Your task to perform on an android device: Show me popular videos on Youtube Image 0: 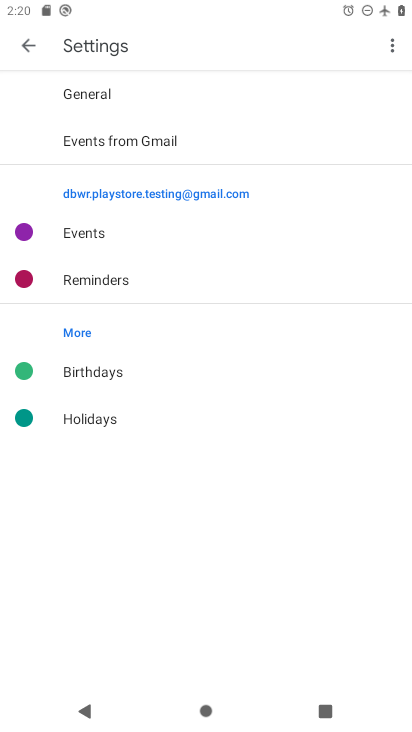
Step 0: press home button
Your task to perform on an android device: Show me popular videos on Youtube Image 1: 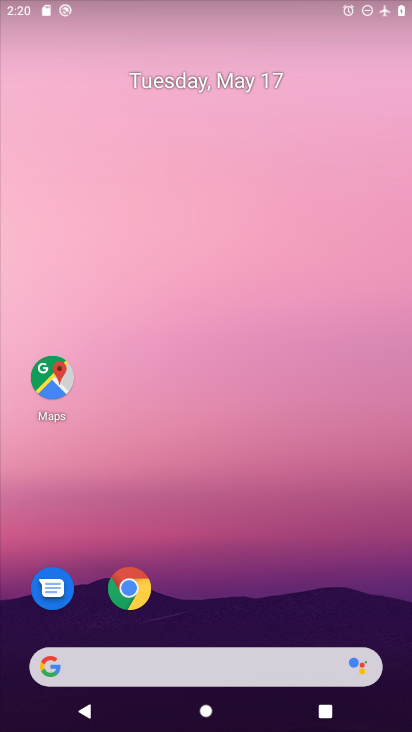
Step 1: drag from (235, 586) to (208, 146)
Your task to perform on an android device: Show me popular videos on Youtube Image 2: 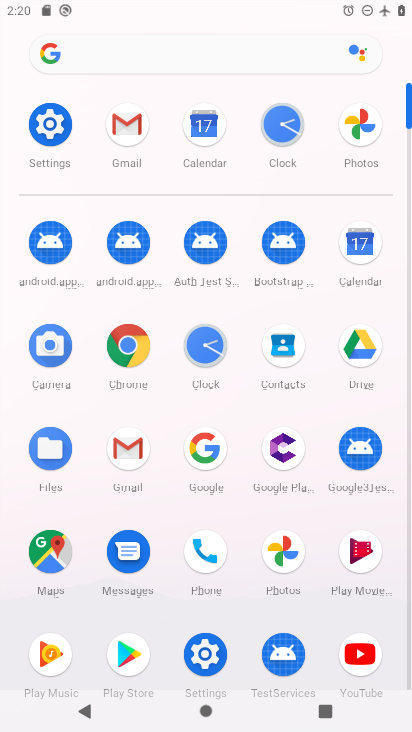
Step 2: click (349, 637)
Your task to perform on an android device: Show me popular videos on Youtube Image 3: 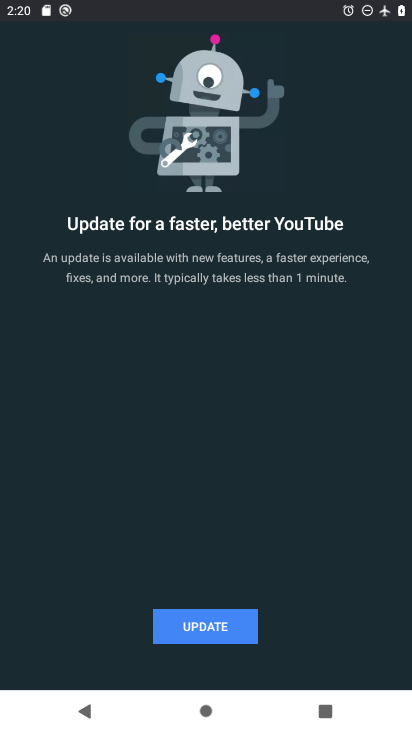
Step 3: click (143, 630)
Your task to perform on an android device: Show me popular videos on Youtube Image 4: 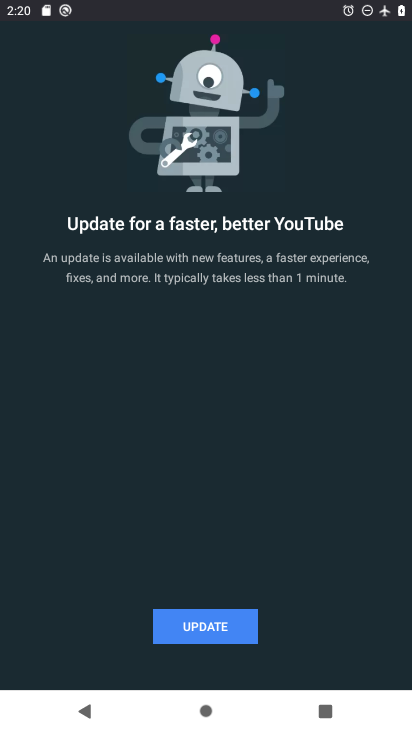
Step 4: click (195, 621)
Your task to perform on an android device: Show me popular videos on Youtube Image 5: 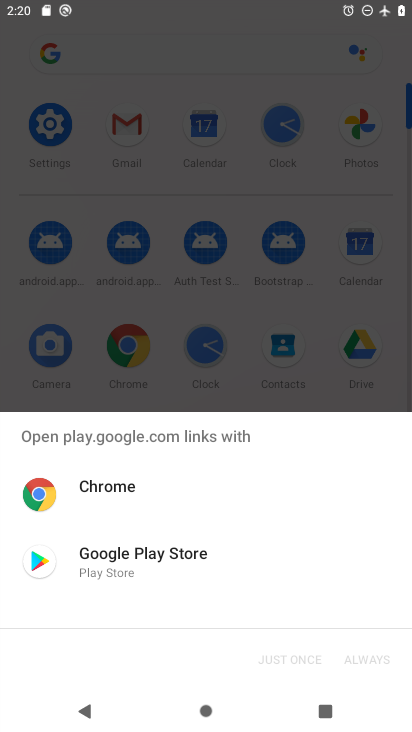
Step 5: click (199, 574)
Your task to perform on an android device: Show me popular videos on Youtube Image 6: 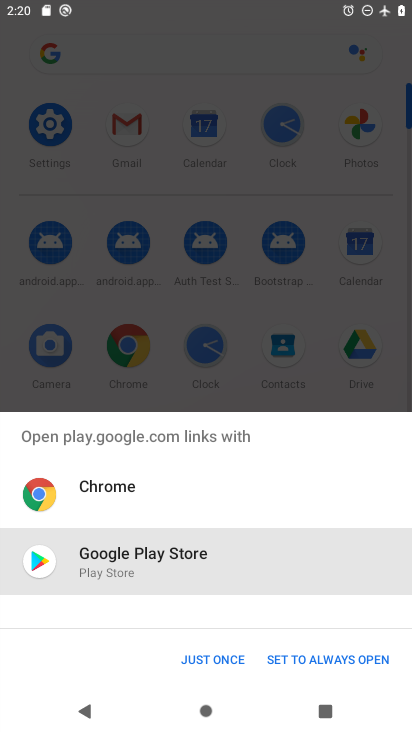
Step 6: click (222, 656)
Your task to perform on an android device: Show me popular videos on Youtube Image 7: 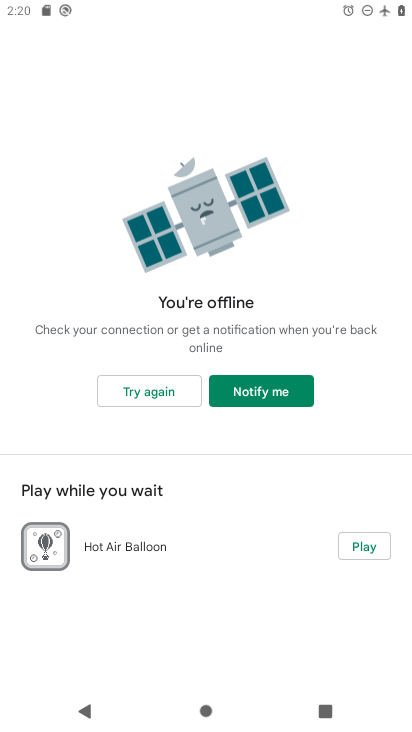
Step 7: click (170, 399)
Your task to perform on an android device: Show me popular videos on Youtube Image 8: 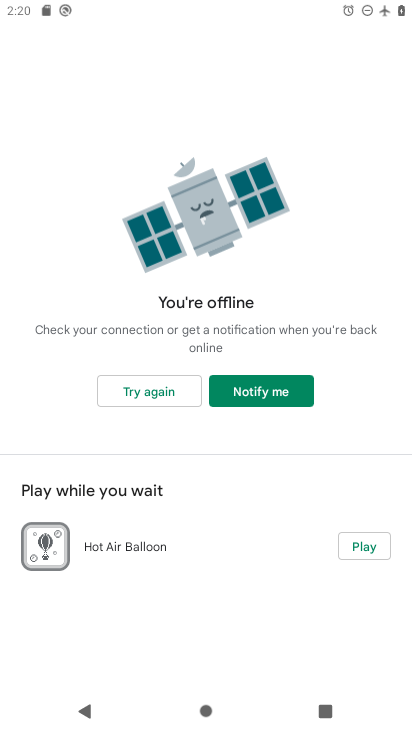
Step 8: click (170, 399)
Your task to perform on an android device: Show me popular videos on Youtube Image 9: 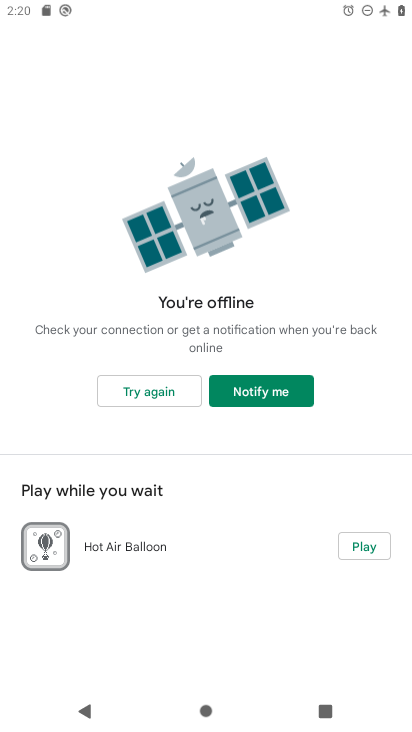
Step 9: task complete